Your task to perform on an android device: turn on translation in the chrome app Image 0: 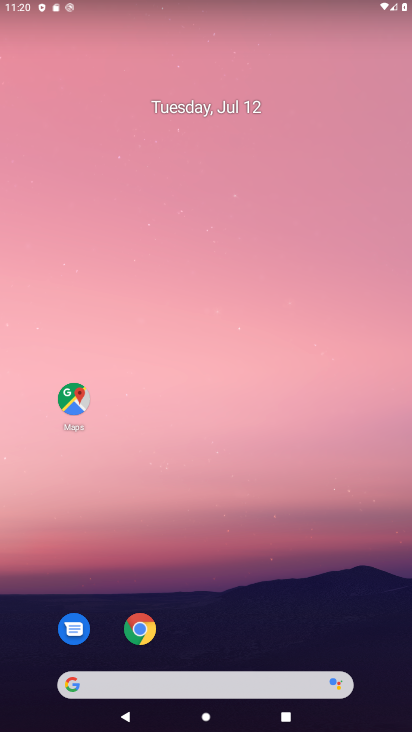
Step 0: click (150, 628)
Your task to perform on an android device: turn on translation in the chrome app Image 1: 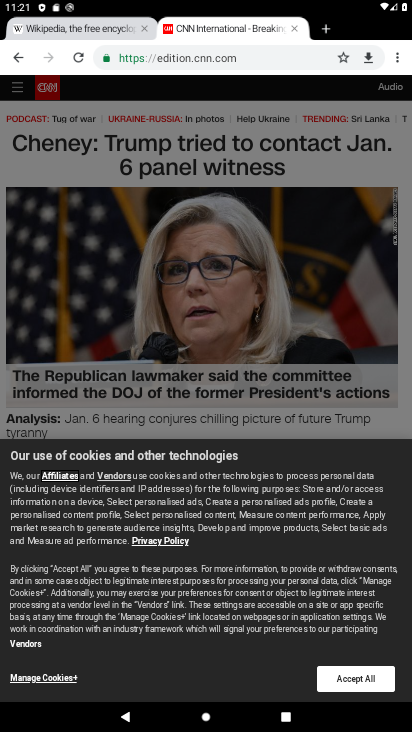
Step 1: click (399, 59)
Your task to perform on an android device: turn on translation in the chrome app Image 2: 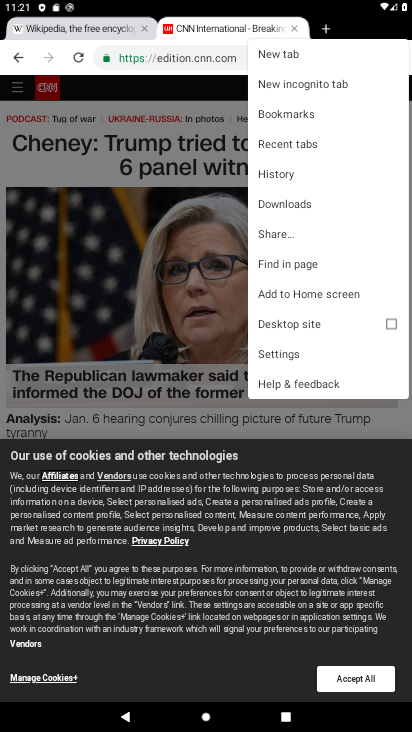
Step 2: click (283, 357)
Your task to perform on an android device: turn on translation in the chrome app Image 3: 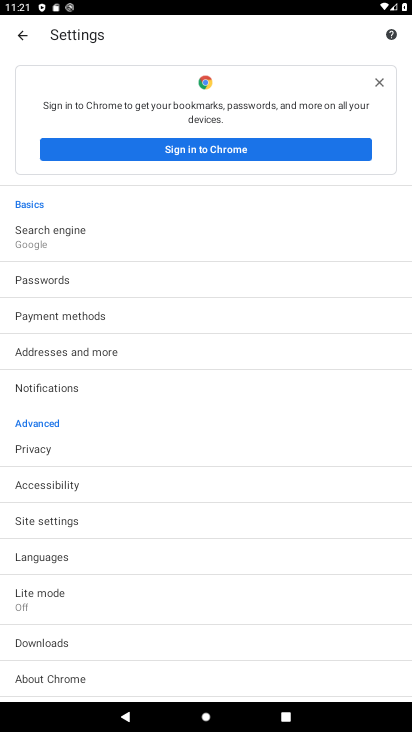
Step 3: click (40, 556)
Your task to perform on an android device: turn on translation in the chrome app Image 4: 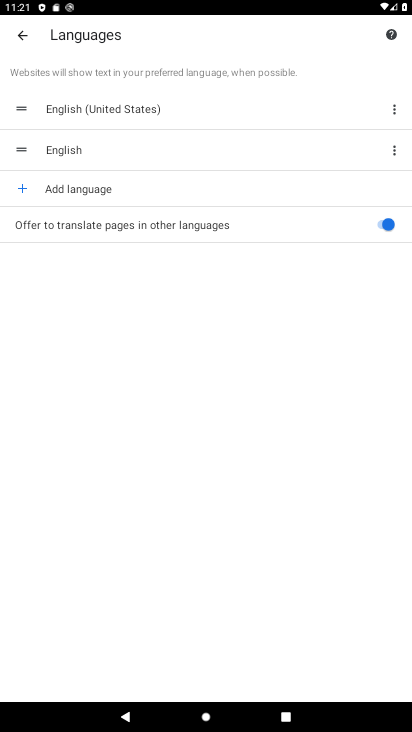
Step 4: task complete